Your task to perform on an android device: open app "Venmo" (install if not already installed) Image 0: 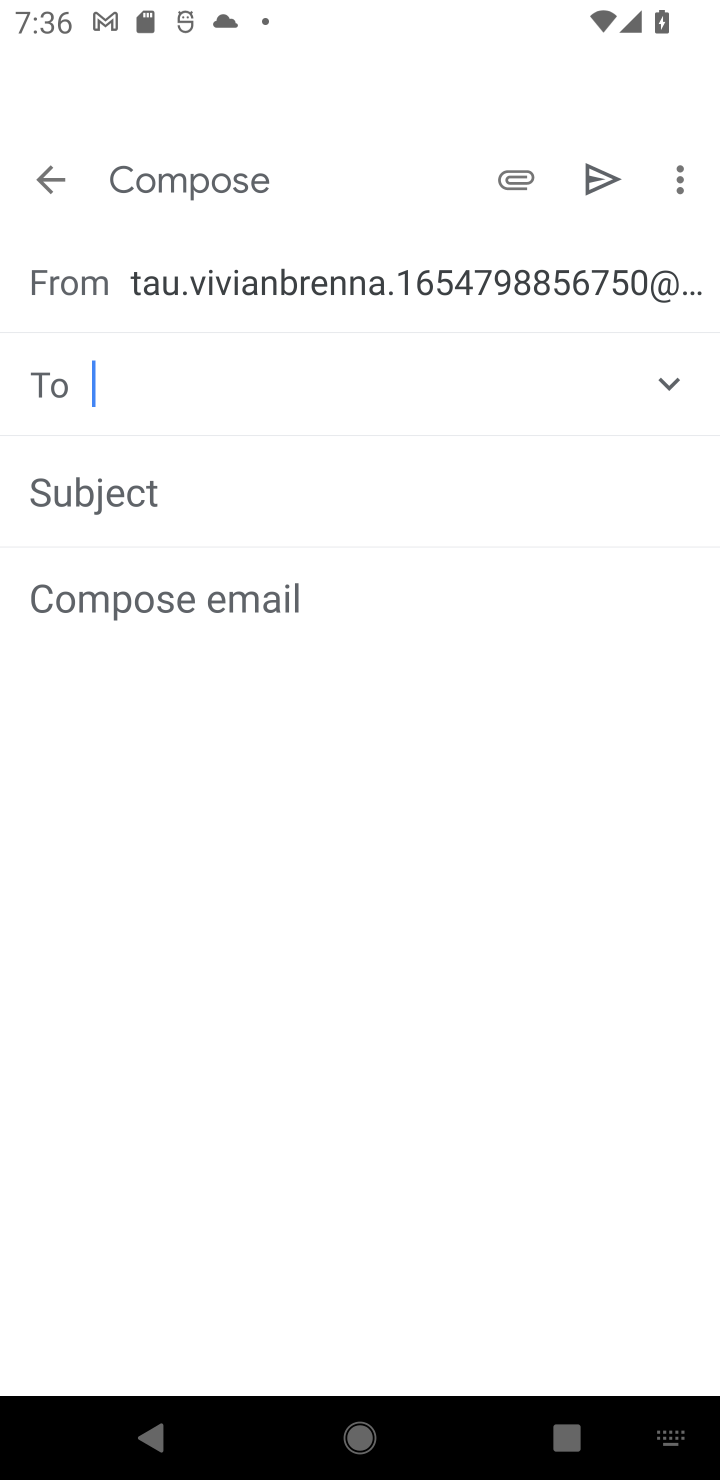
Step 0: press home button
Your task to perform on an android device: open app "Venmo" (install if not already installed) Image 1: 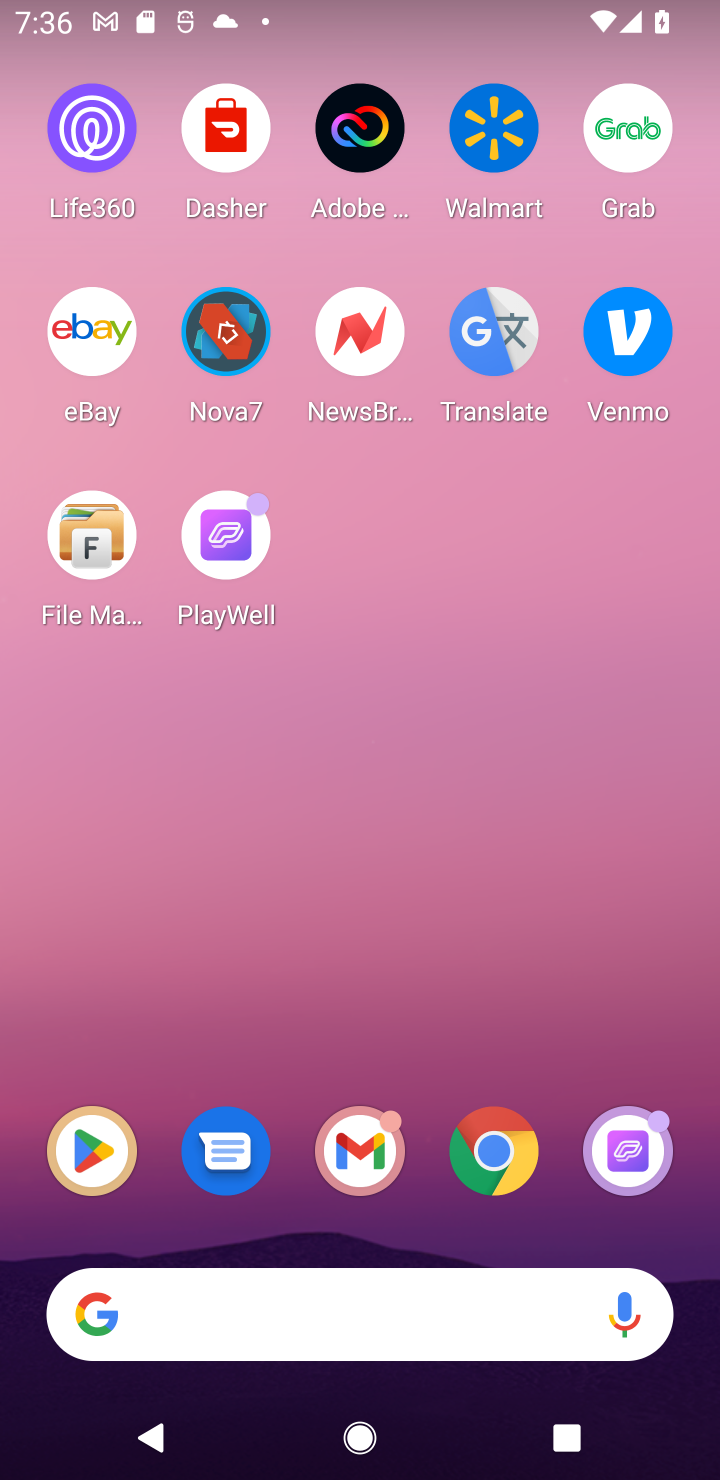
Step 1: click (79, 1149)
Your task to perform on an android device: open app "Venmo" (install if not already installed) Image 2: 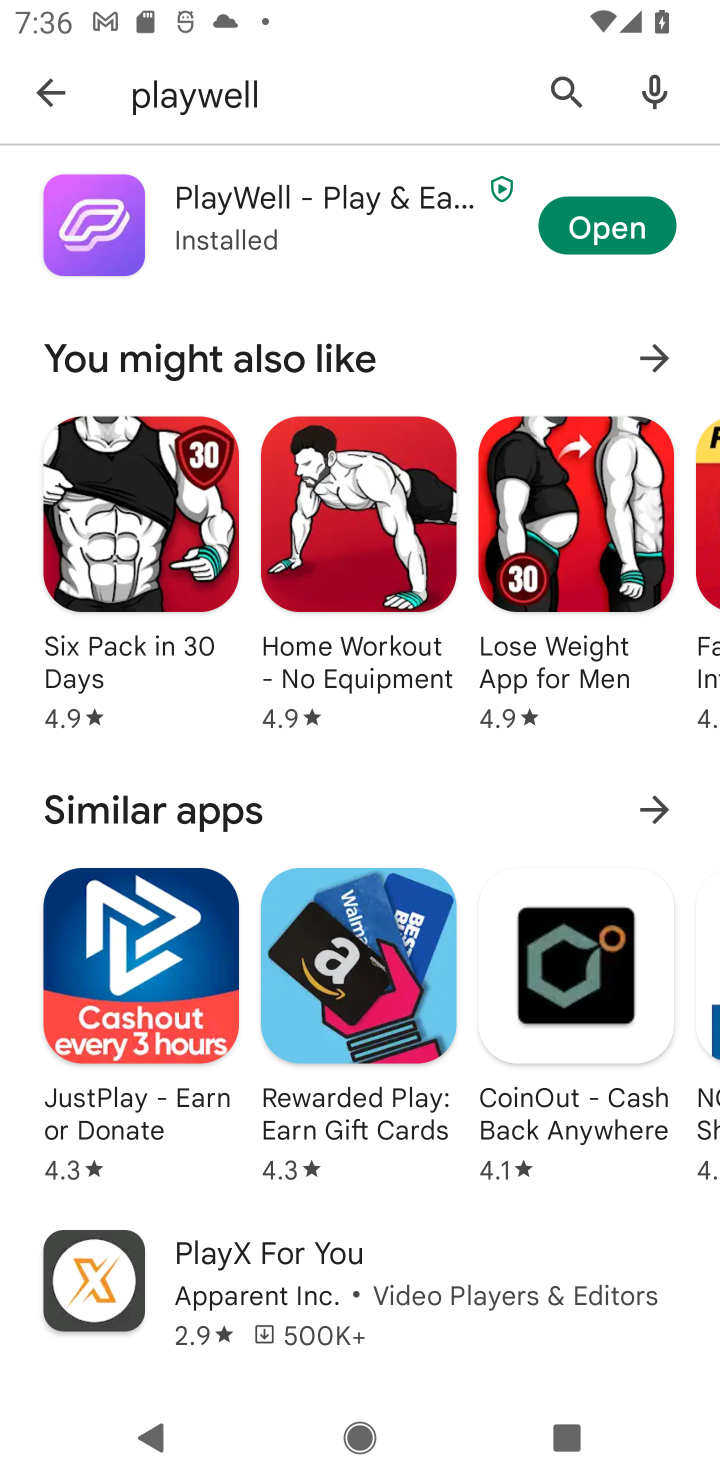
Step 2: click (543, 75)
Your task to perform on an android device: open app "Venmo" (install if not already installed) Image 3: 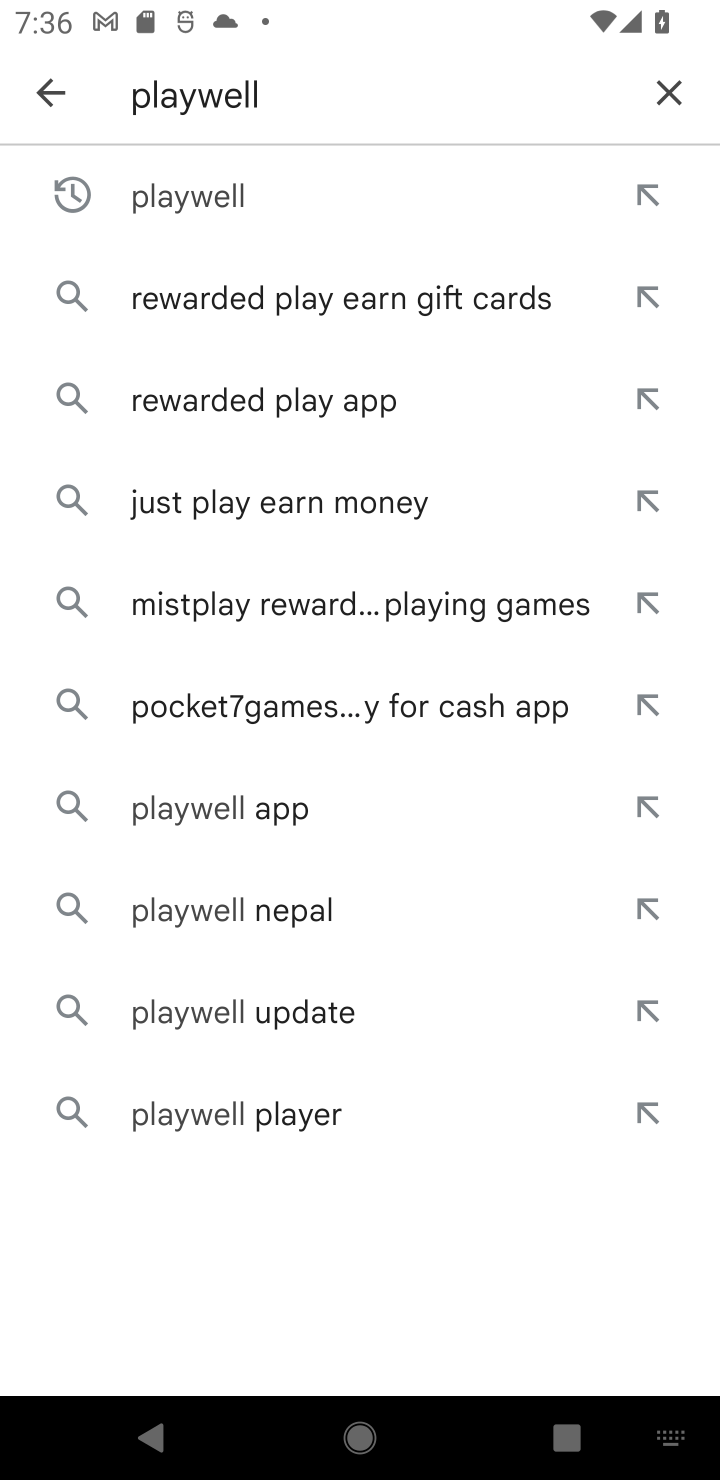
Step 3: click (663, 96)
Your task to perform on an android device: open app "Venmo" (install if not already installed) Image 4: 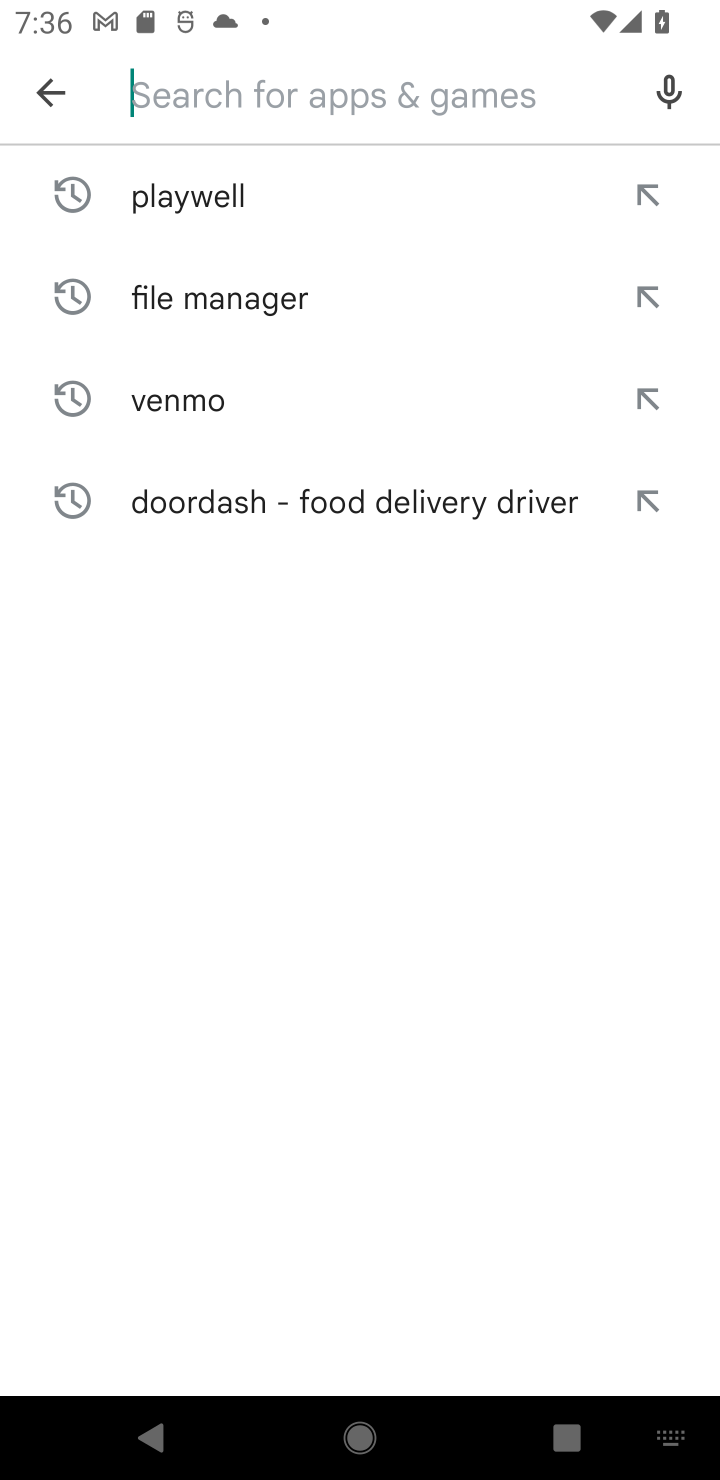
Step 4: type "Venmo"
Your task to perform on an android device: open app "Venmo" (install if not already installed) Image 5: 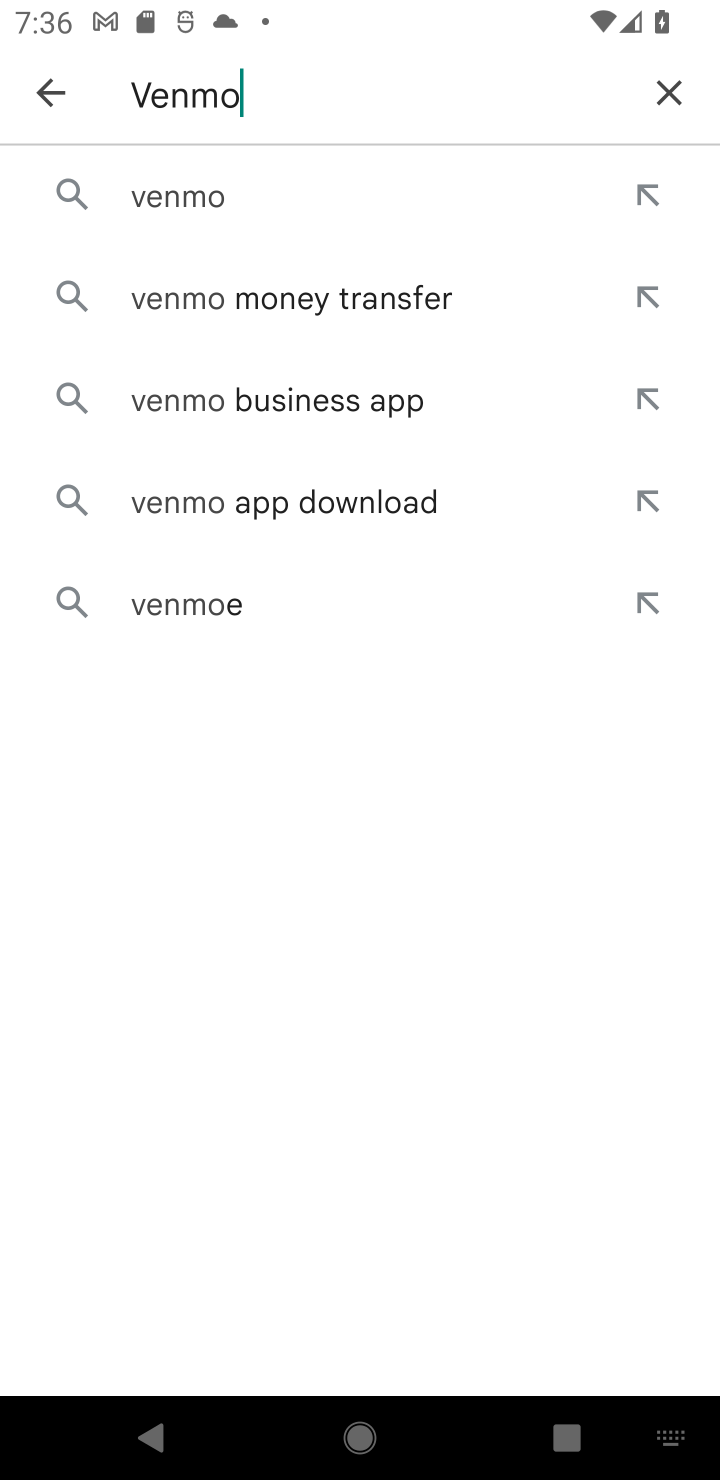
Step 5: click (270, 206)
Your task to perform on an android device: open app "Venmo" (install if not already installed) Image 6: 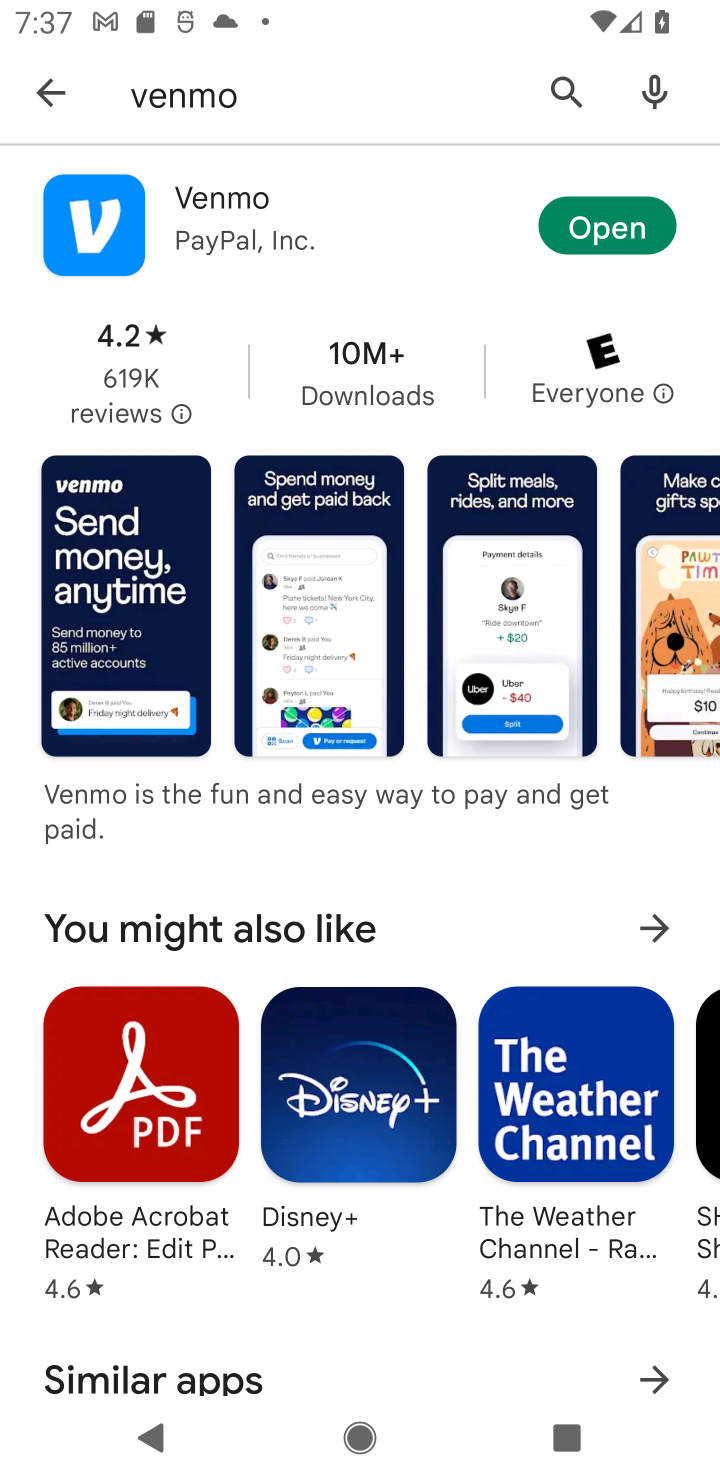
Step 6: click (581, 236)
Your task to perform on an android device: open app "Venmo" (install if not already installed) Image 7: 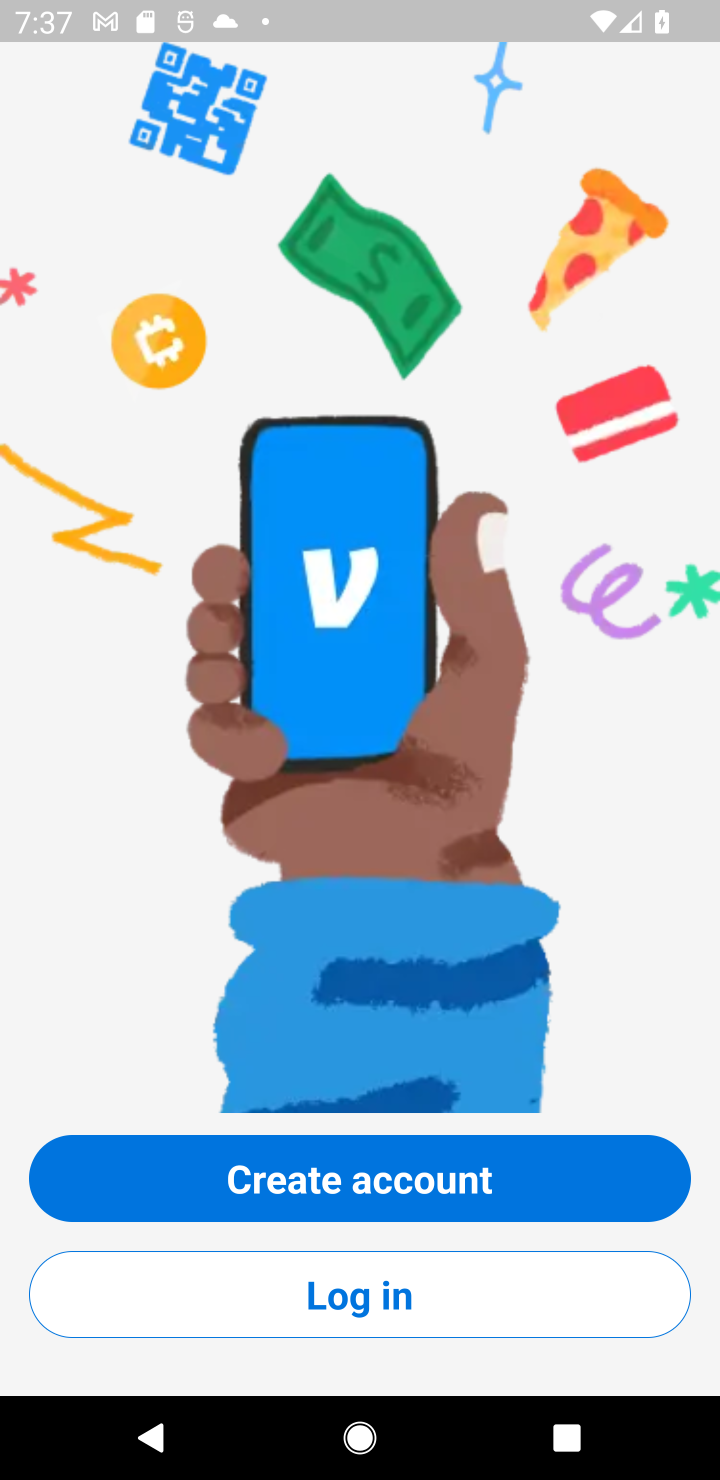
Step 7: task complete